Your task to perform on an android device: Open ESPN.com Image 0: 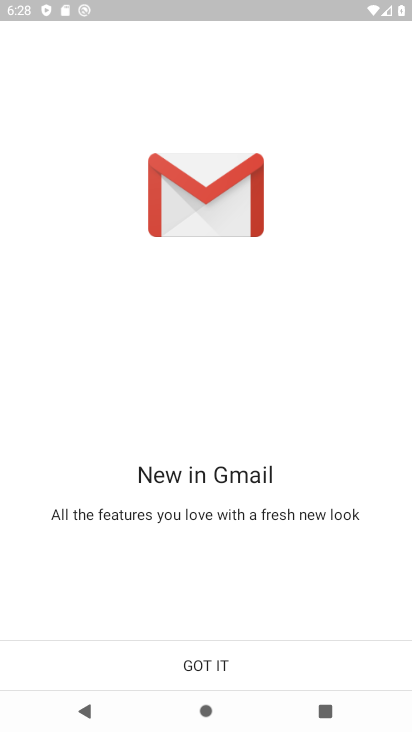
Step 0: click (221, 667)
Your task to perform on an android device: Open ESPN.com Image 1: 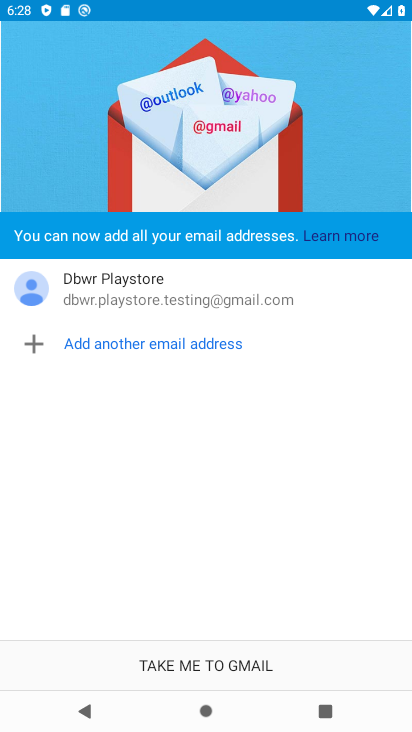
Step 1: click (221, 667)
Your task to perform on an android device: Open ESPN.com Image 2: 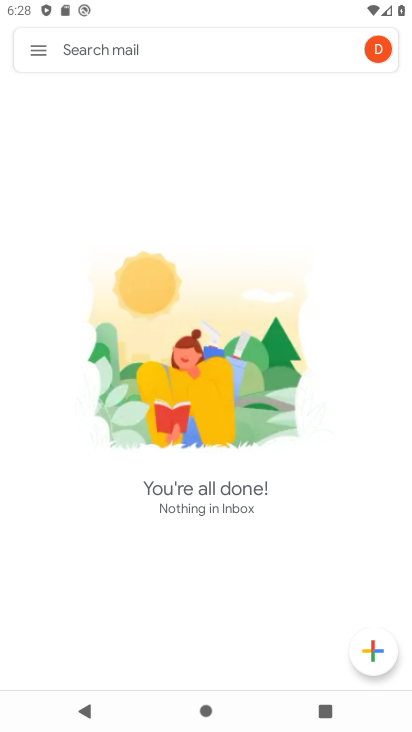
Step 2: press home button
Your task to perform on an android device: Open ESPN.com Image 3: 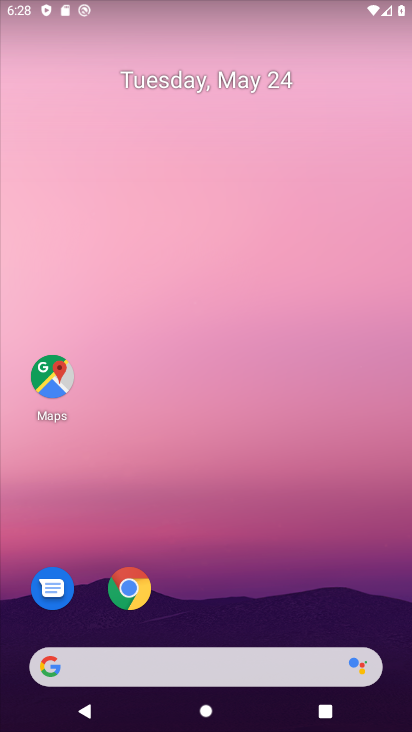
Step 3: drag from (212, 664) to (292, 126)
Your task to perform on an android device: Open ESPN.com Image 4: 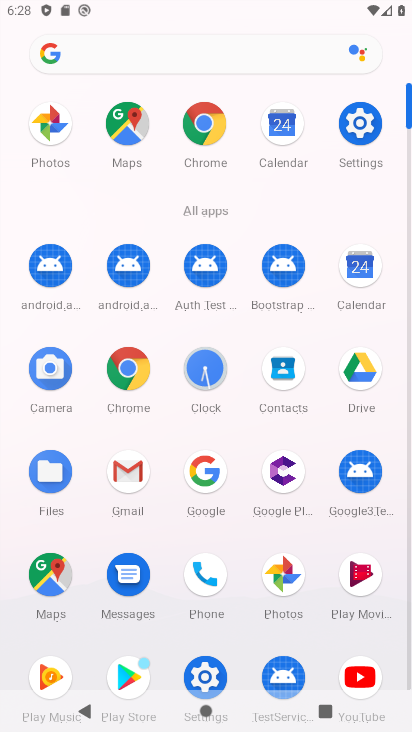
Step 4: click (127, 365)
Your task to perform on an android device: Open ESPN.com Image 5: 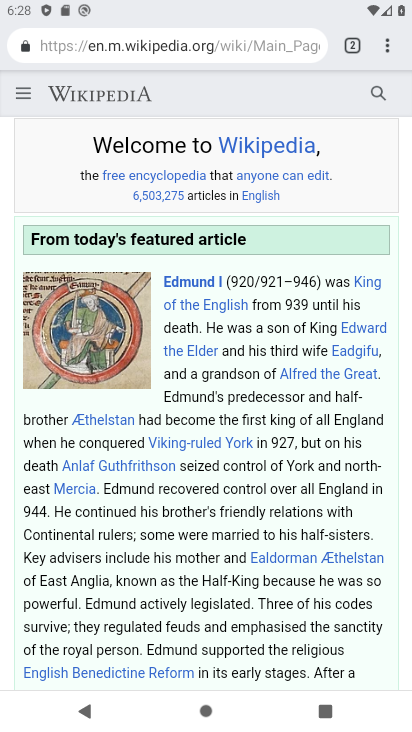
Step 5: click (144, 32)
Your task to perform on an android device: Open ESPN.com Image 6: 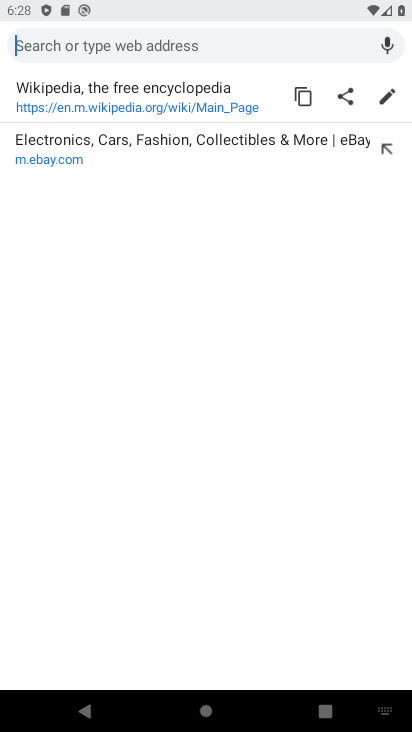
Step 6: type "espn.com"
Your task to perform on an android device: Open ESPN.com Image 7: 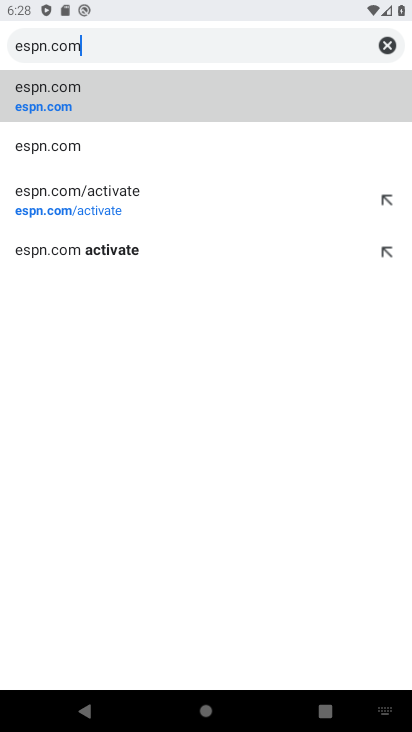
Step 7: click (75, 99)
Your task to perform on an android device: Open ESPN.com Image 8: 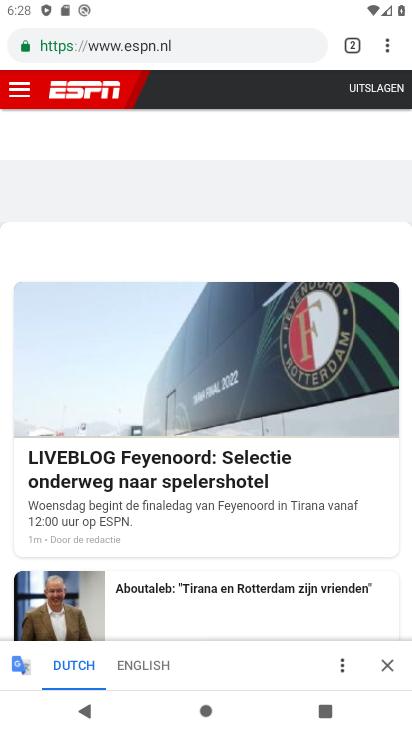
Step 8: task complete